Your task to perform on an android device: turn off notifications in google photos Image 0: 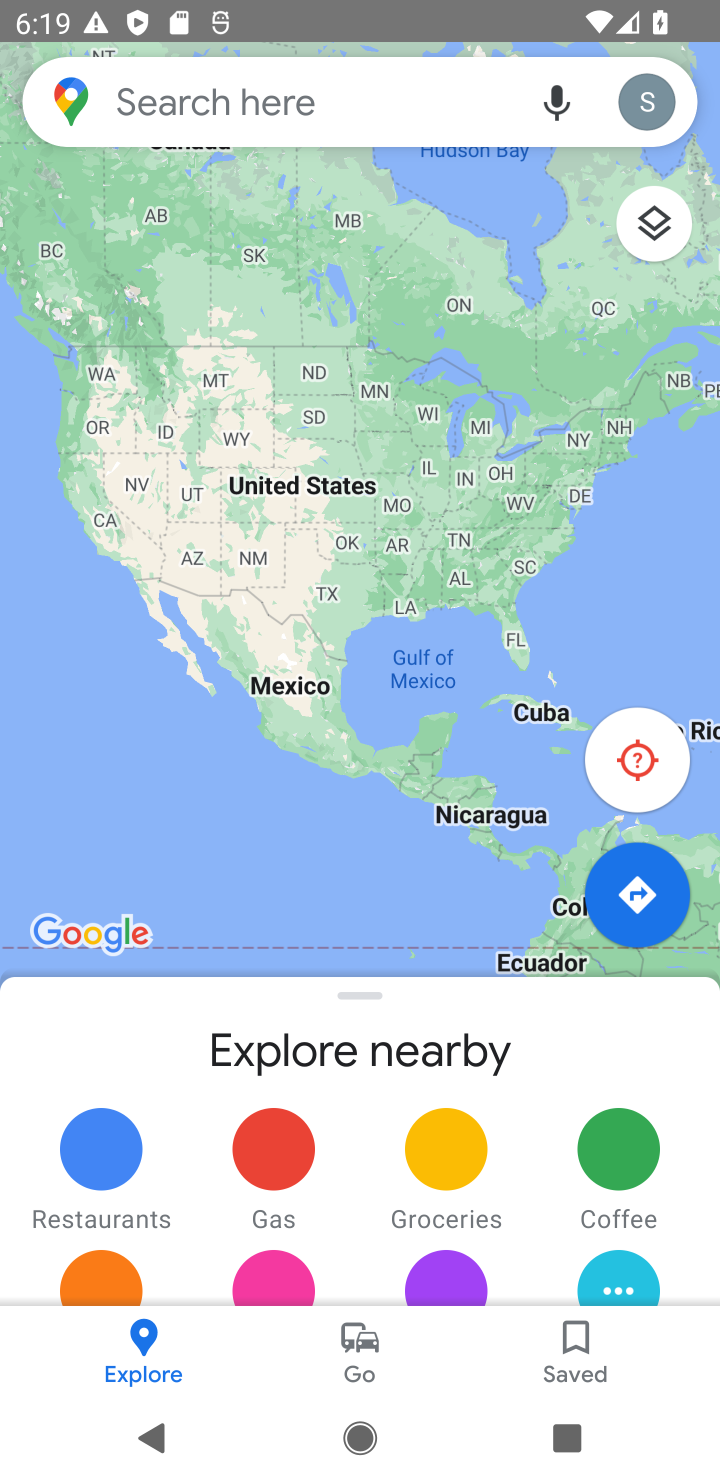
Step 0: press back button
Your task to perform on an android device: turn off notifications in google photos Image 1: 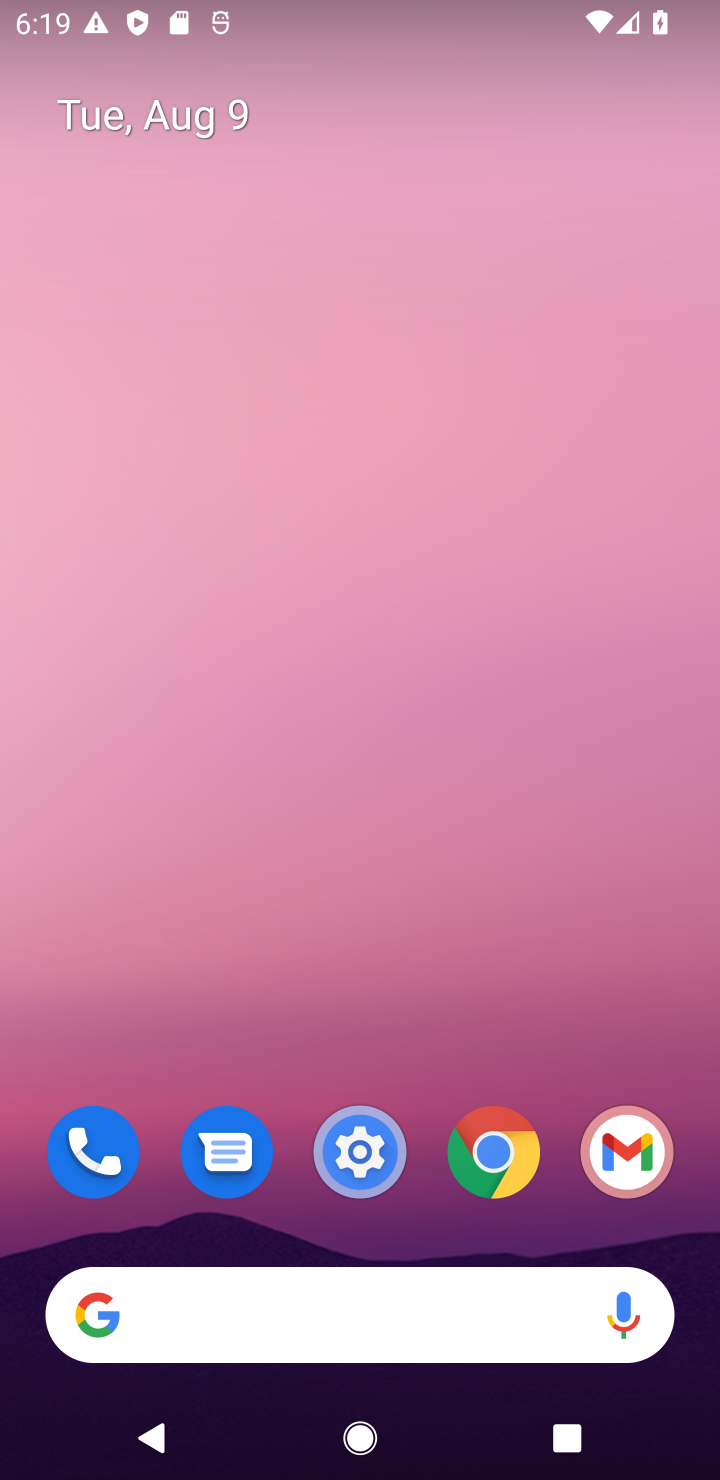
Step 1: press back button
Your task to perform on an android device: turn off notifications in google photos Image 2: 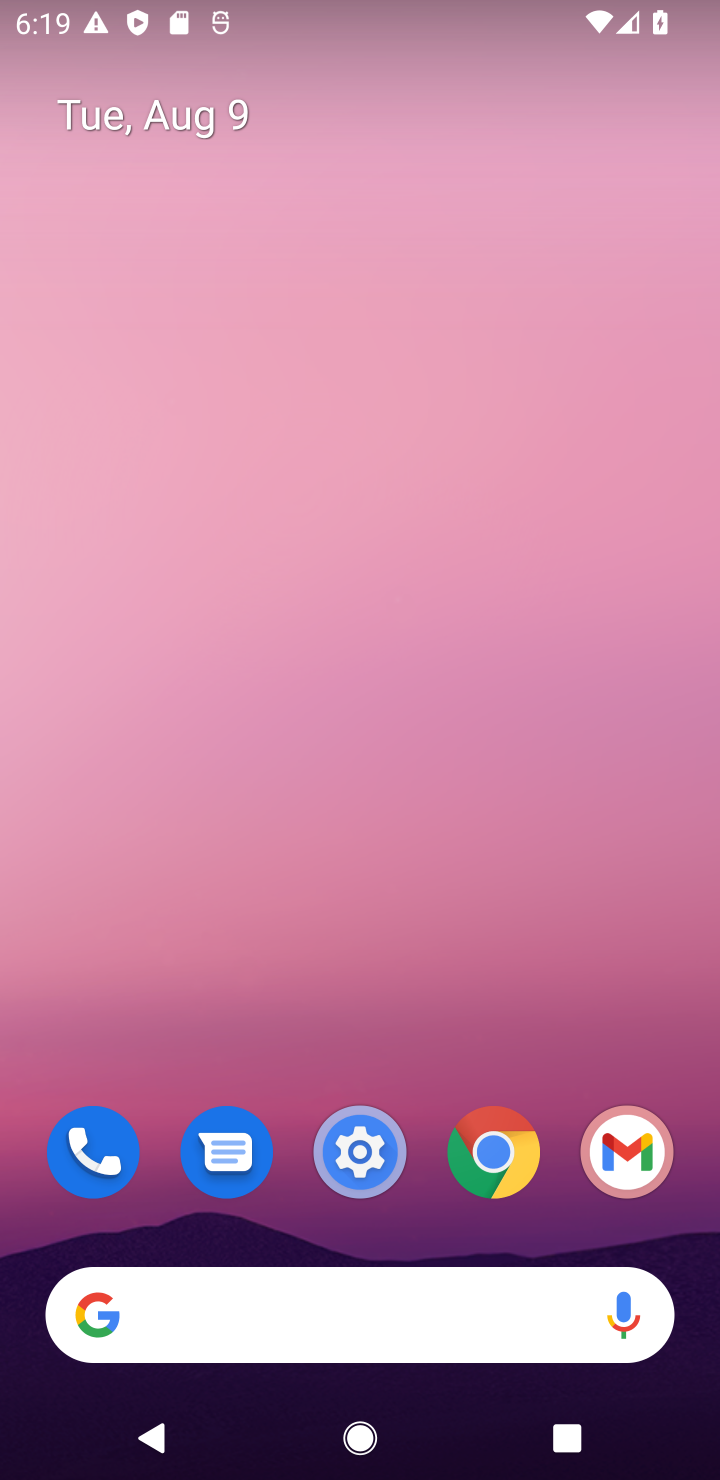
Step 2: drag from (411, 1250) to (560, 293)
Your task to perform on an android device: turn off notifications in google photos Image 3: 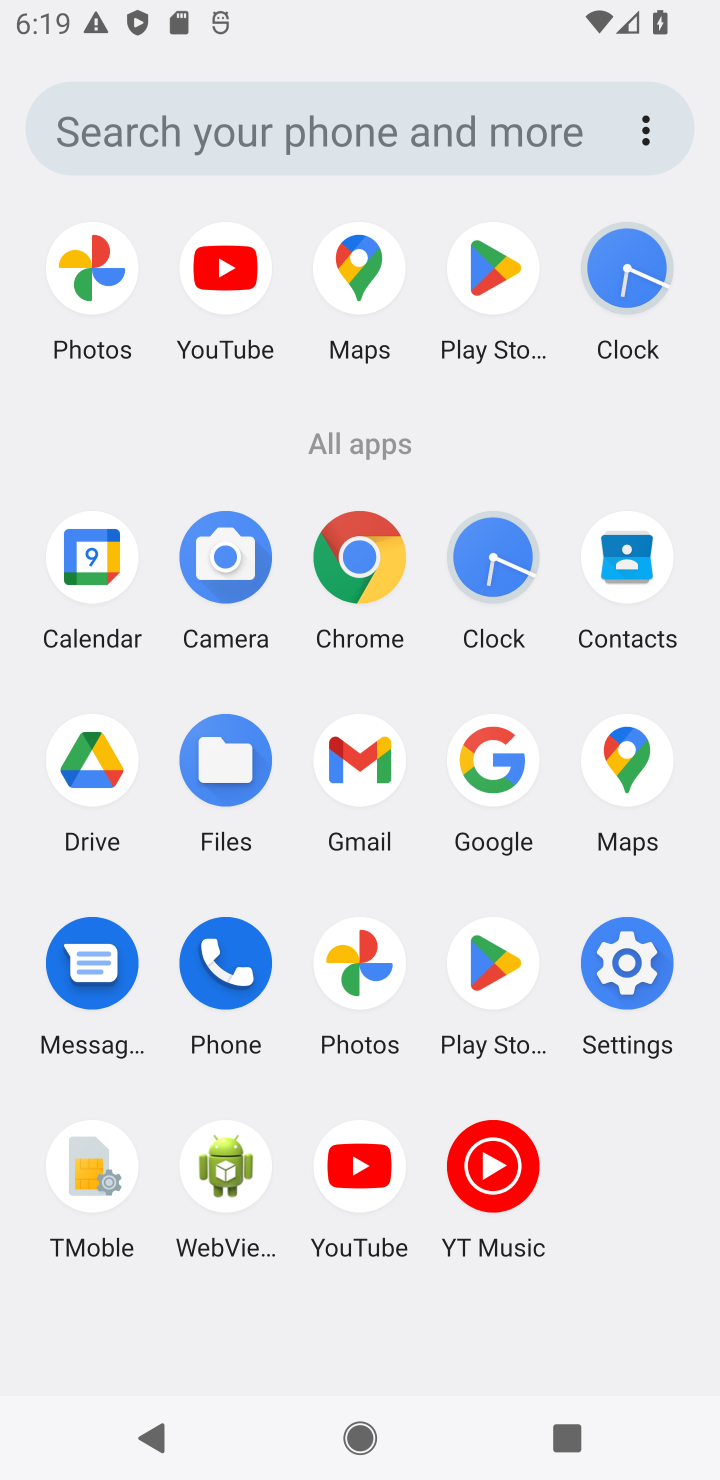
Step 3: click (350, 958)
Your task to perform on an android device: turn off notifications in google photos Image 4: 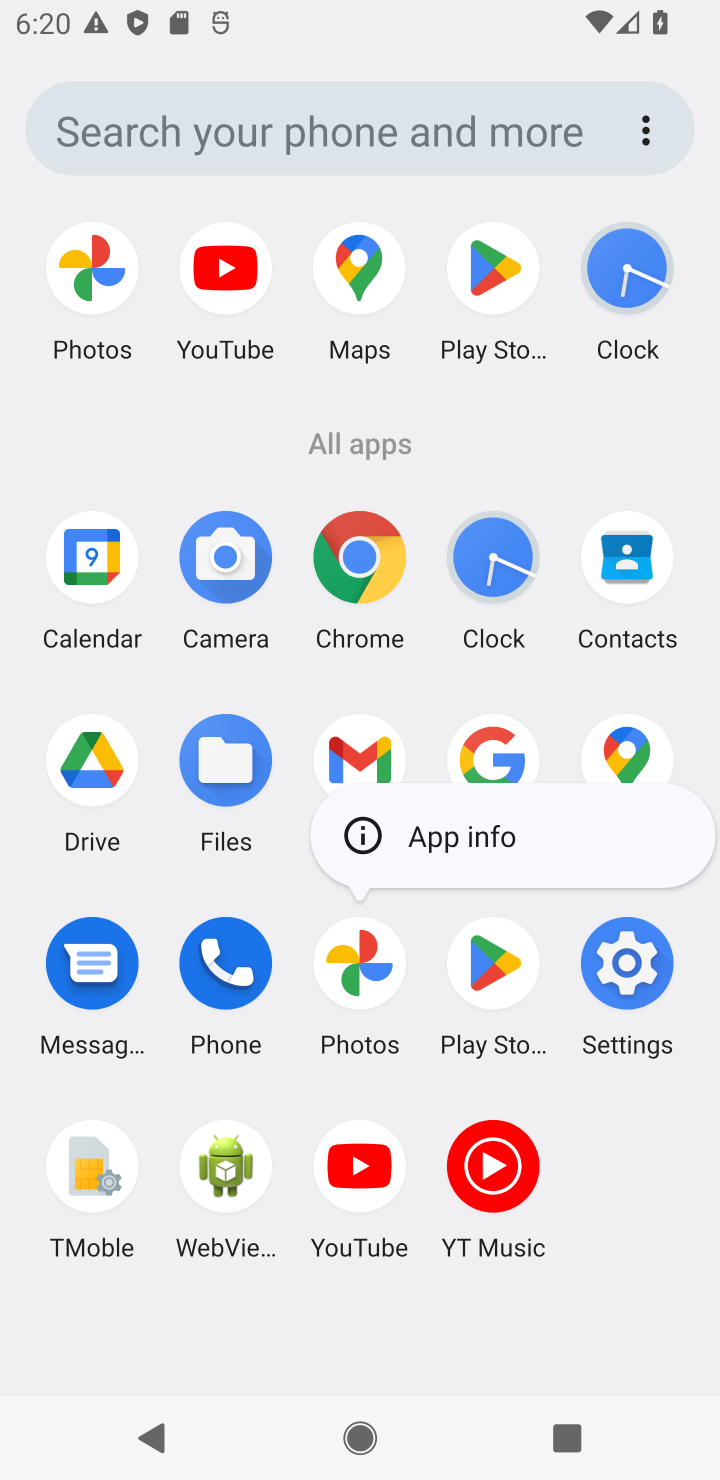
Step 4: click (376, 965)
Your task to perform on an android device: turn off notifications in google photos Image 5: 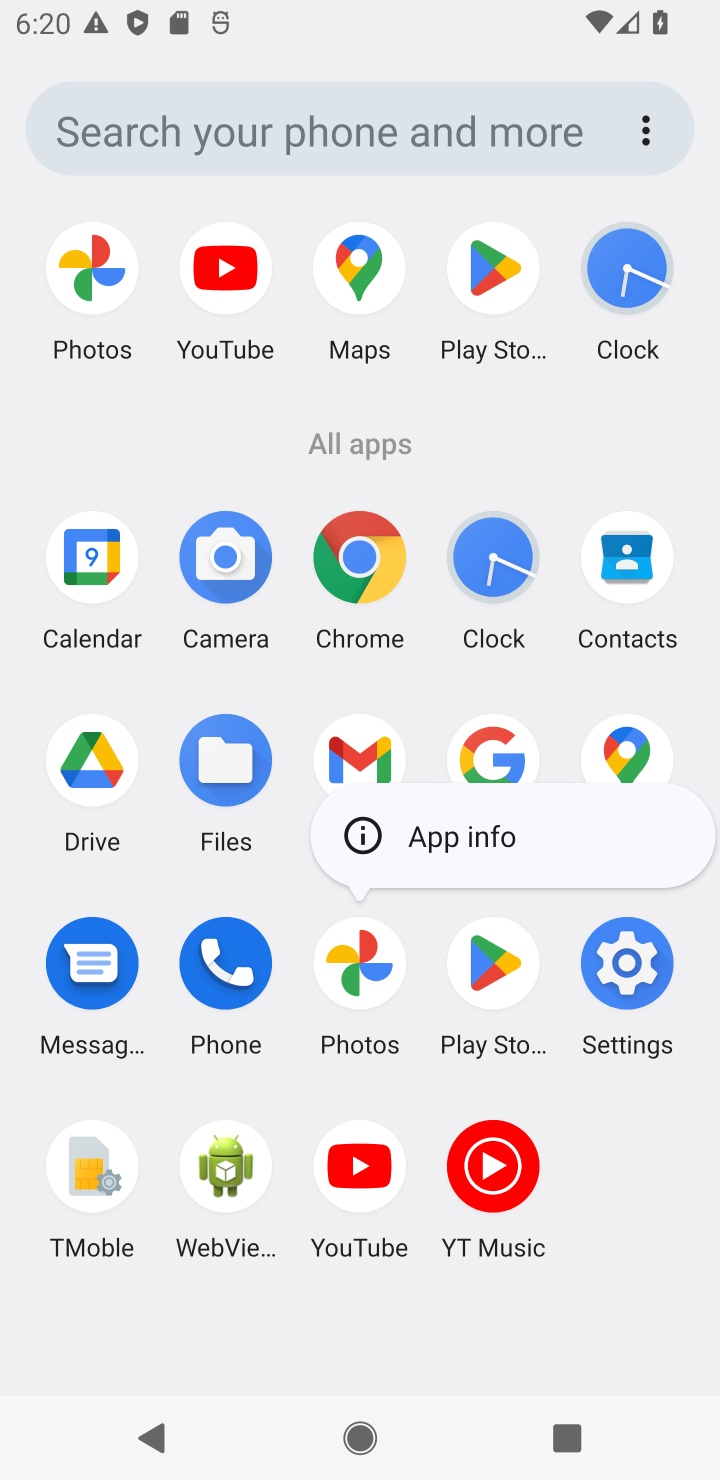
Step 5: click (414, 823)
Your task to perform on an android device: turn off notifications in google photos Image 6: 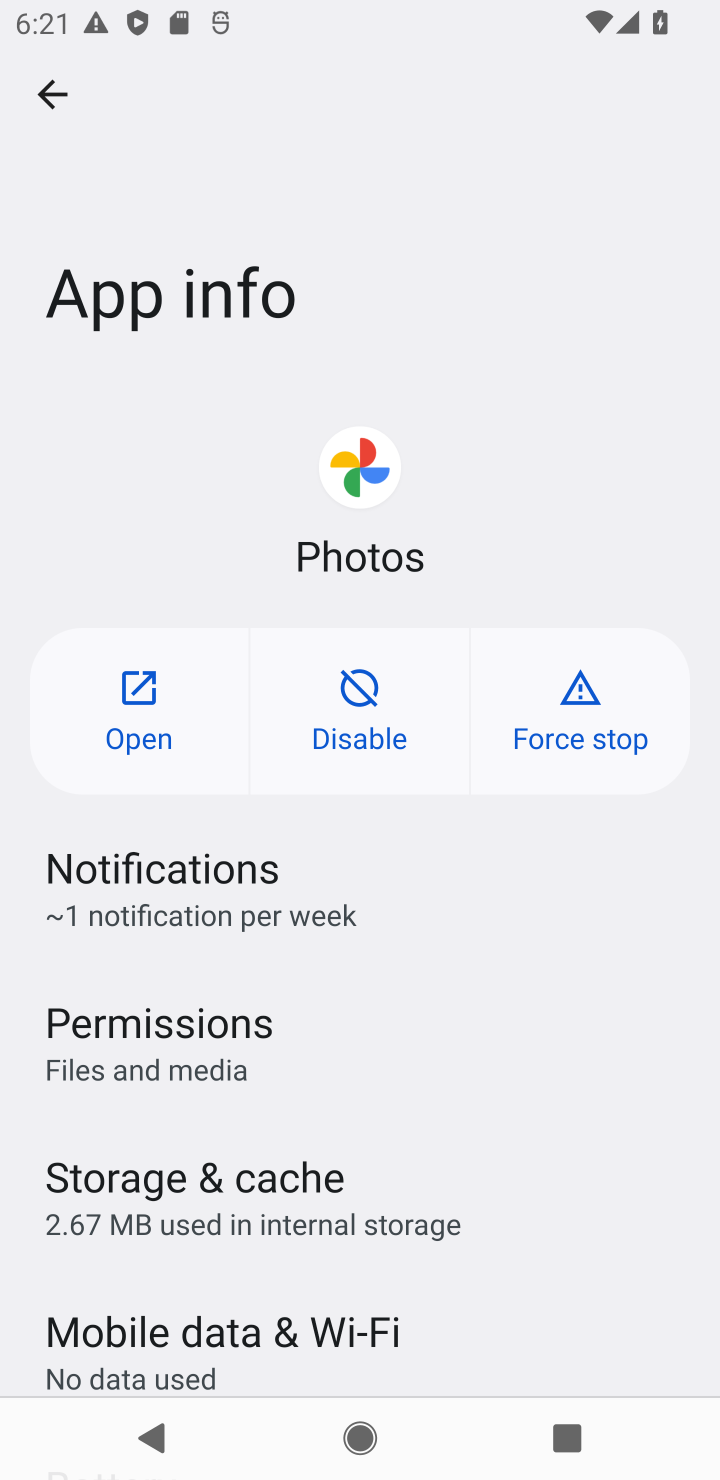
Step 6: click (378, 847)
Your task to perform on an android device: turn off notifications in google photos Image 7: 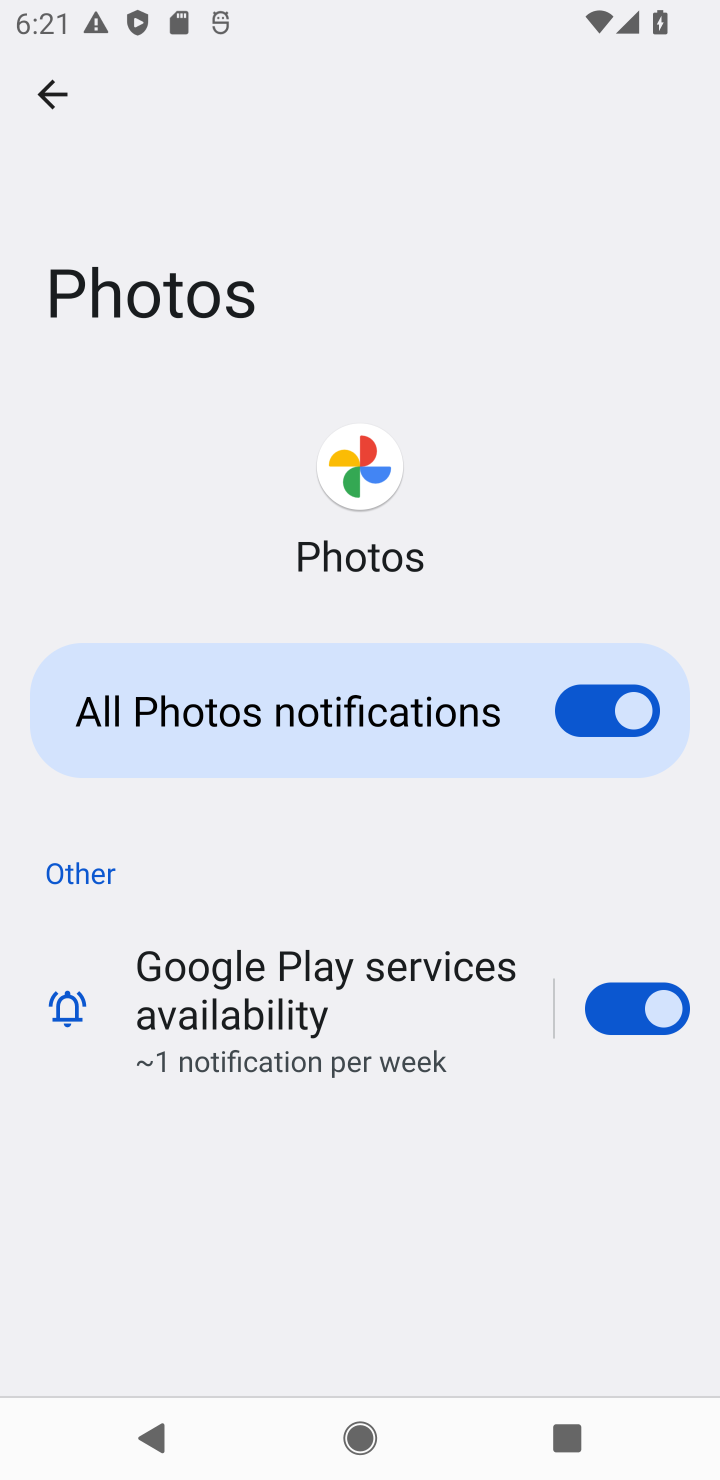
Step 7: click (606, 717)
Your task to perform on an android device: turn off notifications in google photos Image 8: 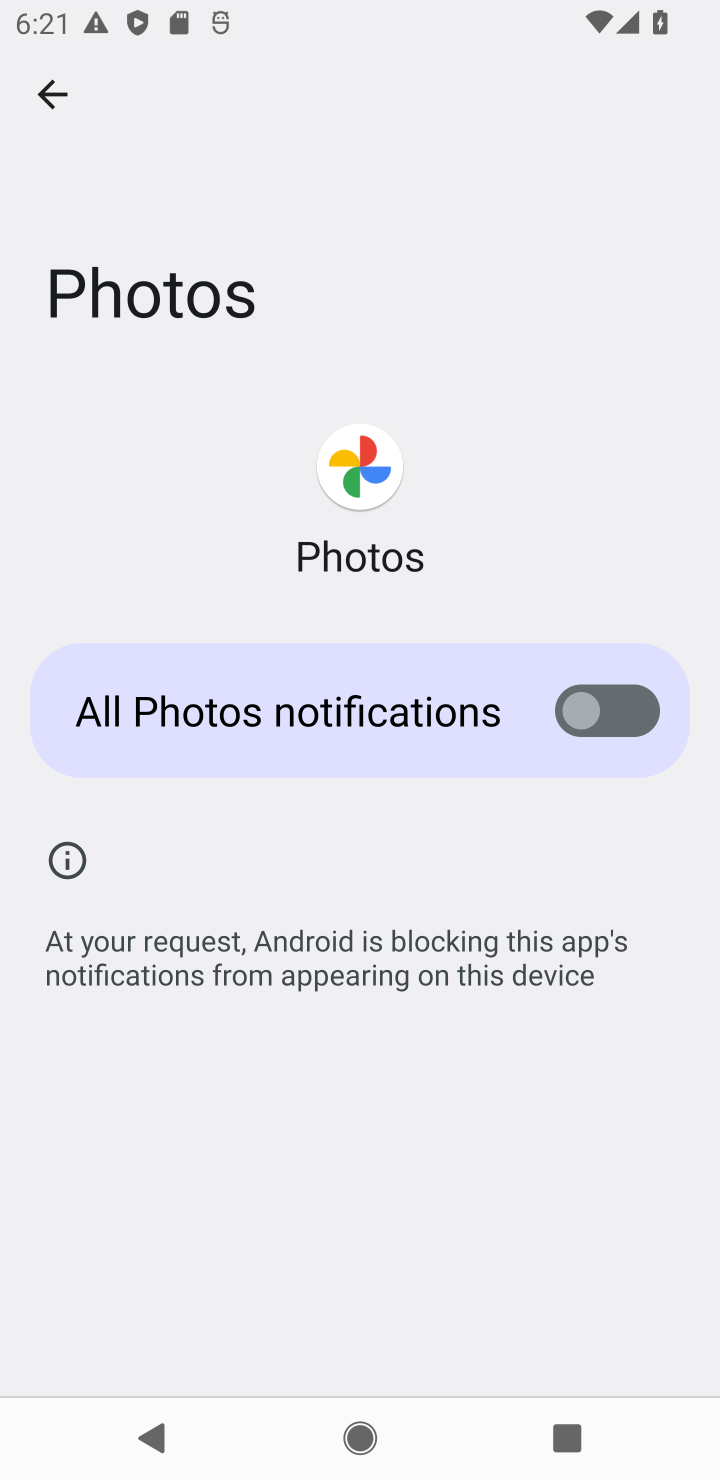
Step 8: task complete